Your task to perform on an android device: Show me recent news Image 0: 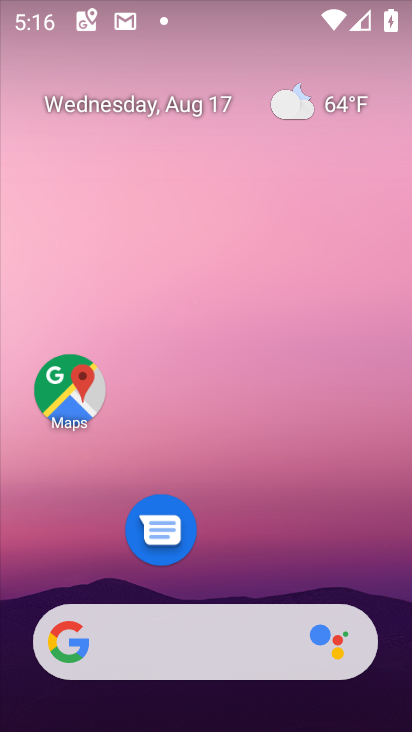
Step 0: click (184, 633)
Your task to perform on an android device: Show me recent news Image 1: 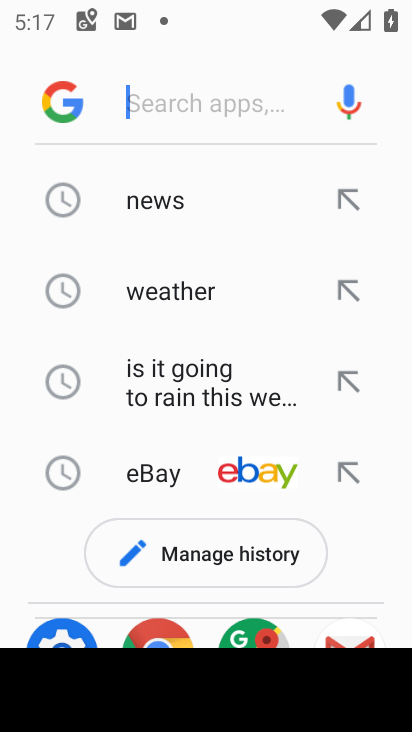
Step 1: click (149, 203)
Your task to perform on an android device: Show me recent news Image 2: 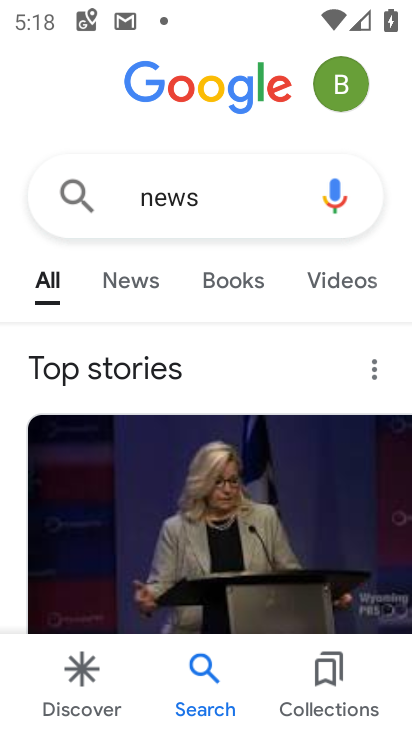
Step 2: task complete